Your task to perform on an android device: Open ESPN.com Image 0: 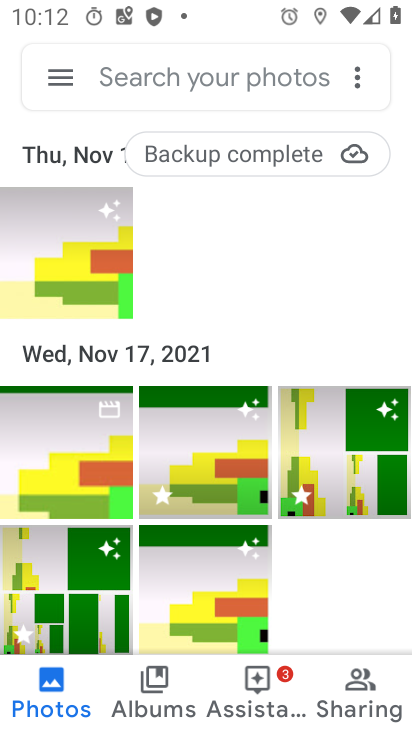
Step 0: press back button
Your task to perform on an android device: Open ESPN.com Image 1: 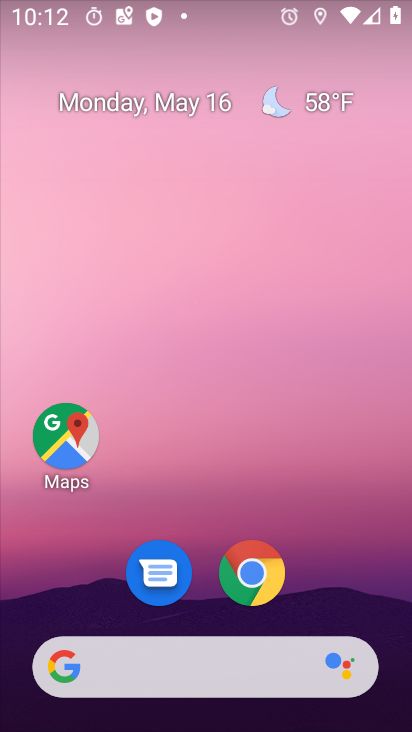
Step 1: drag from (268, 484) to (381, 602)
Your task to perform on an android device: Open ESPN.com Image 2: 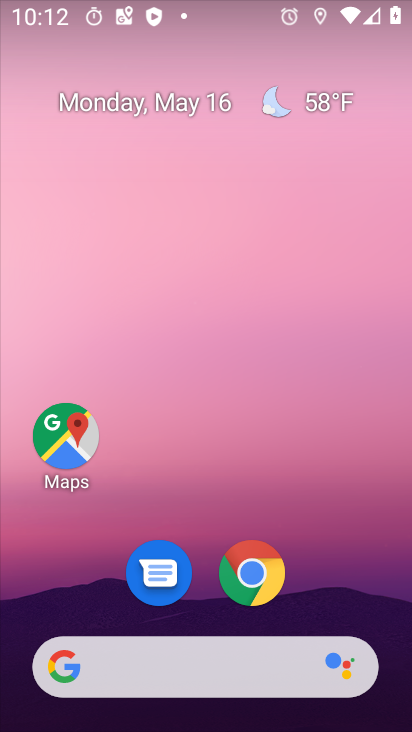
Step 2: drag from (323, 168) to (197, 201)
Your task to perform on an android device: Open ESPN.com Image 3: 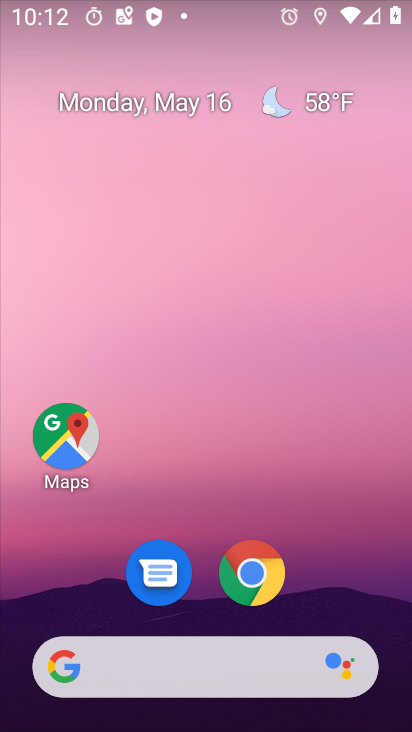
Step 3: drag from (299, 607) to (144, 14)
Your task to perform on an android device: Open ESPN.com Image 4: 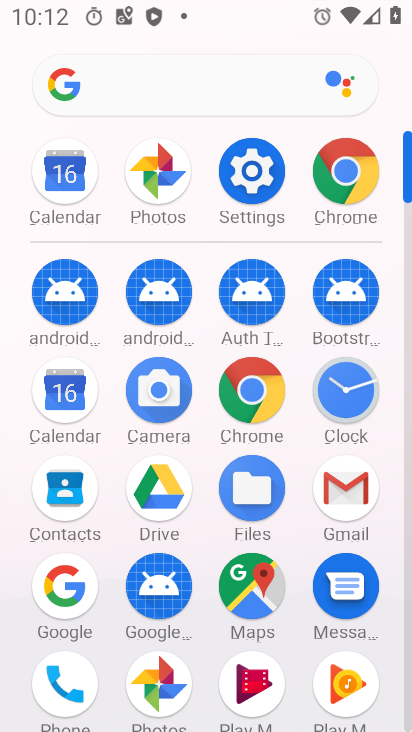
Step 4: drag from (280, 564) to (249, 34)
Your task to perform on an android device: Open ESPN.com Image 5: 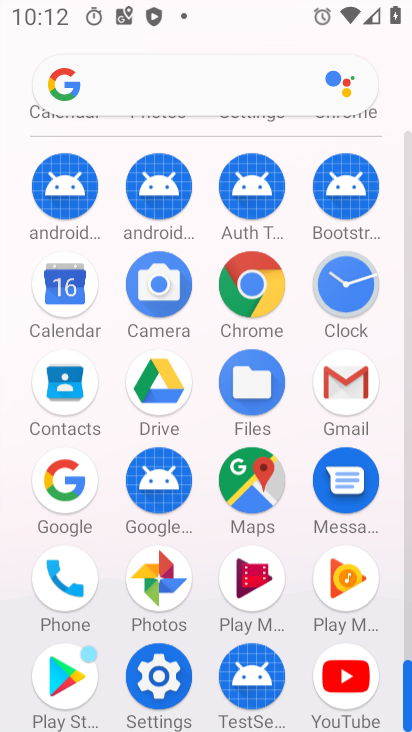
Step 5: drag from (292, 408) to (223, 70)
Your task to perform on an android device: Open ESPN.com Image 6: 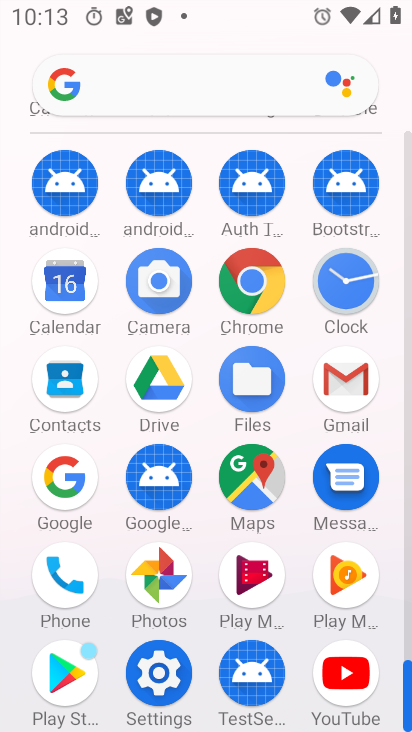
Step 6: click (248, 292)
Your task to perform on an android device: Open ESPN.com Image 7: 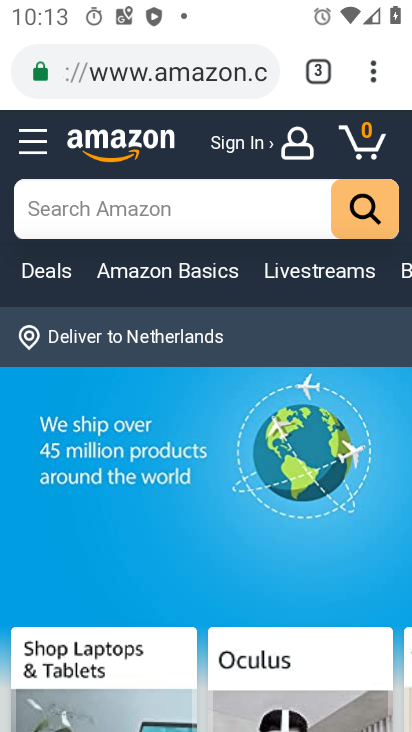
Step 7: drag from (378, 74) to (117, 131)
Your task to perform on an android device: Open ESPN.com Image 8: 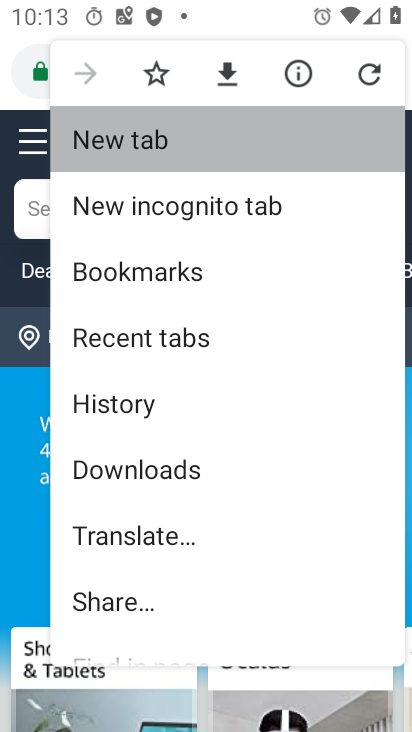
Step 8: click (112, 137)
Your task to perform on an android device: Open ESPN.com Image 9: 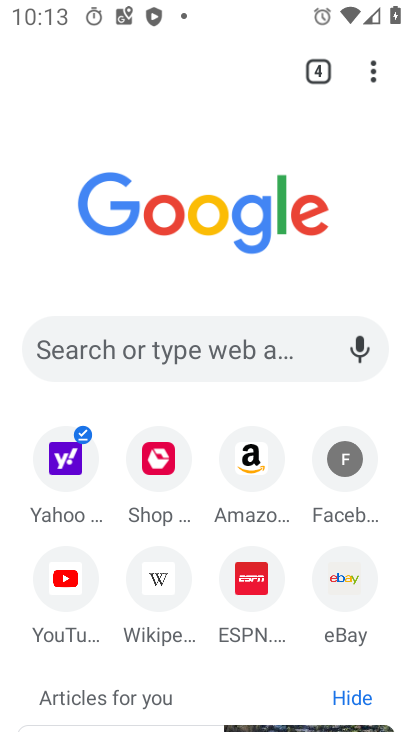
Step 9: click (251, 591)
Your task to perform on an android device: Open ESPN.com Image 10: 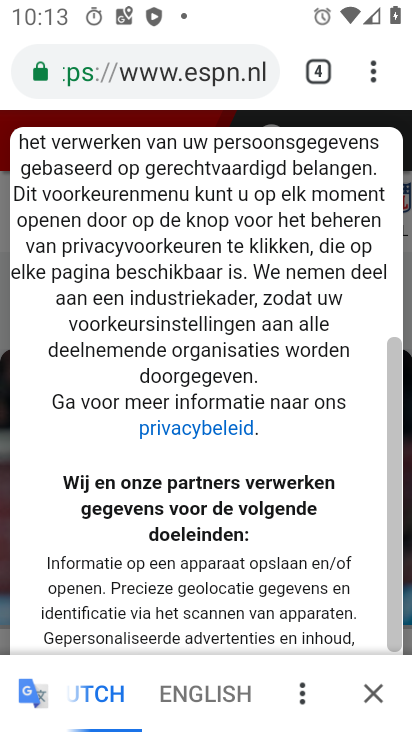
Step 10: task complete